Your task to perform on an android device: Open settings Image 0: 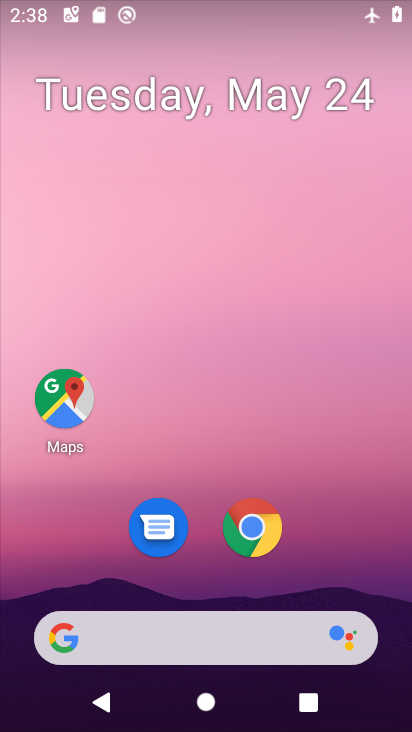
Step 0: drag from (340, 594) to (357, 54)
Your task to perform on an android device: Open settings Image 1: 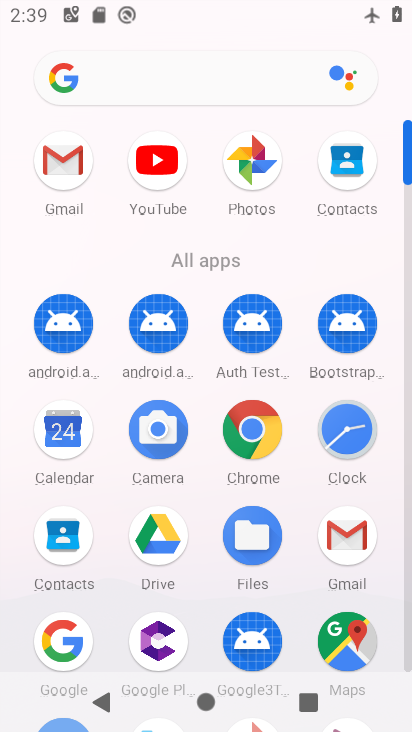
Step 1: click (408, 526)
Your task to perform on an android device: Open settings Image 2: 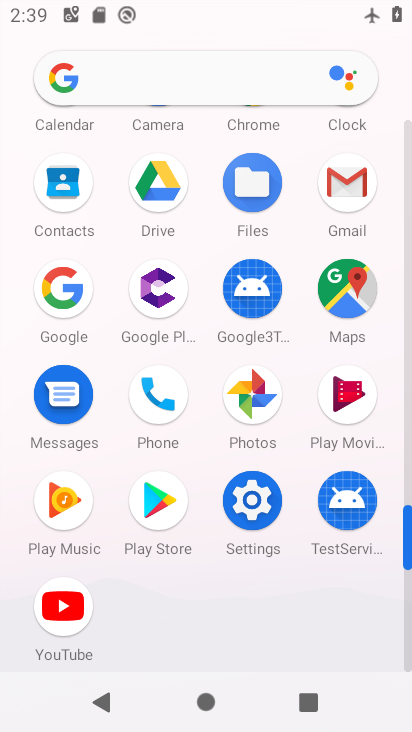
Step 2: click (255, 511)
Your task to perform on an android device: Open settings Image 3: 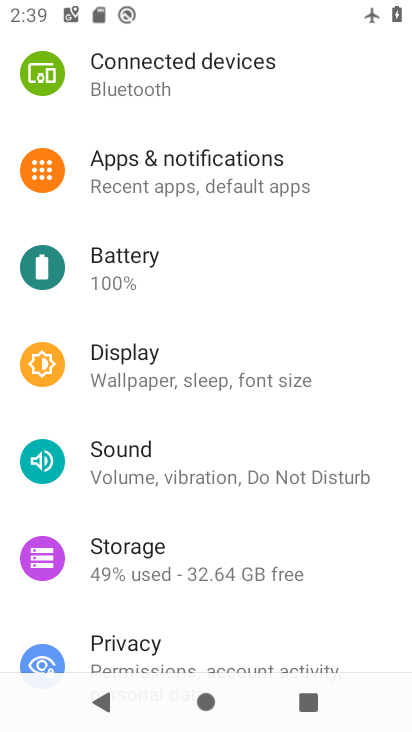
Step 3: task complete